Your task to perform on an android device: see sites visited before in the chrome app Image 0: 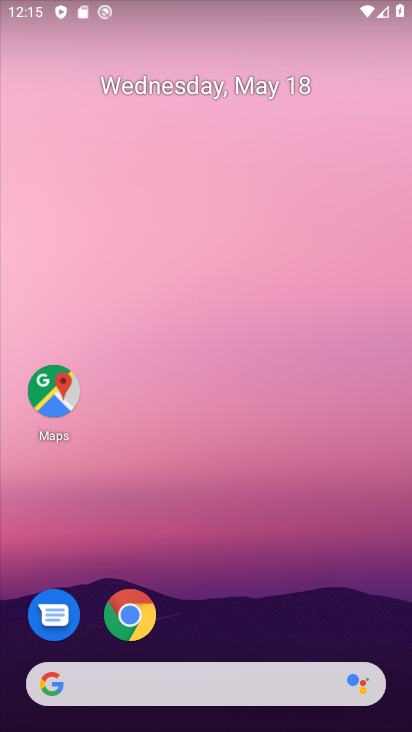
Step 0: click (135, 618)
Your task to perform on an android device: see sites visited before in the chrome app Image 1: 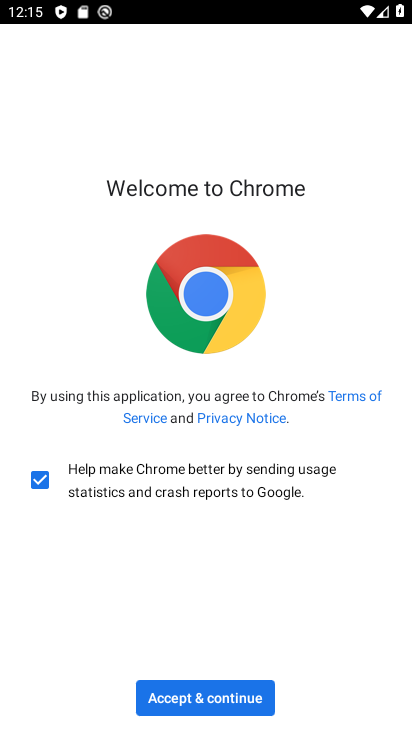
Step 1: click (188, 695)
Your task to perform on an android device: see sites visited before in the chrome app Image 2: 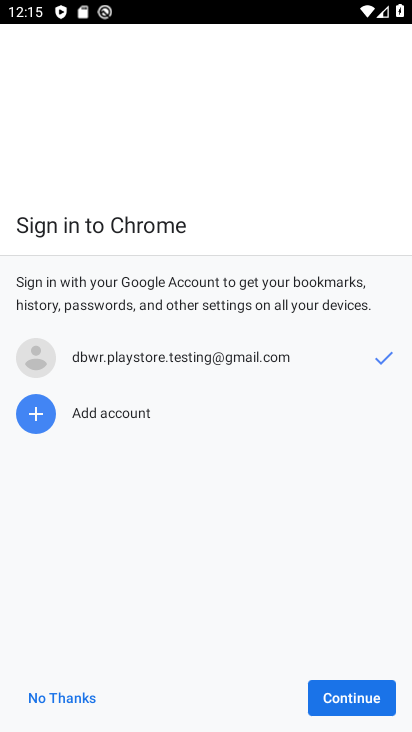
Step 2: click (348, 704)
Your task to perform on an android device: see sites visited before in the chrome app Image 3: 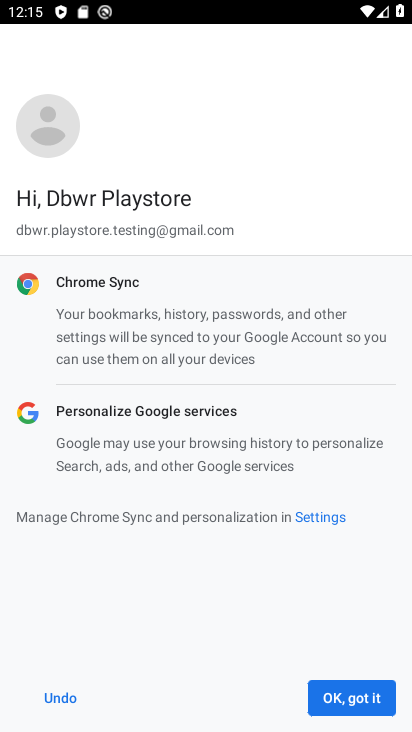
Step 3: click (351, 699)
Your task to perform on an android device: see sites visited before in the chrome app Image 4: 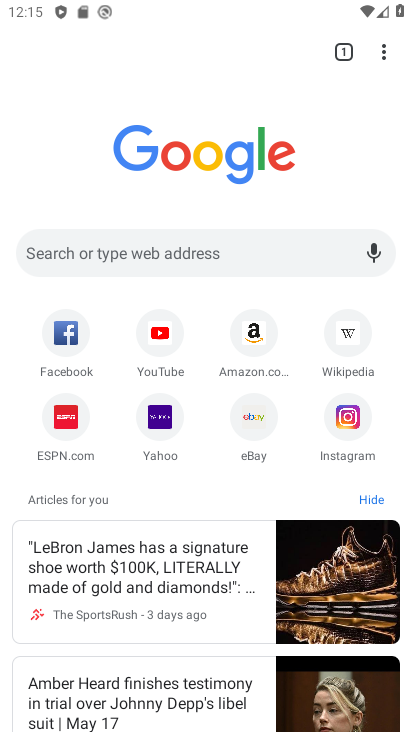
Step 4: click (383, 56)
Your task to perform on an android device: see sites visited before in the chrome app Image 5: 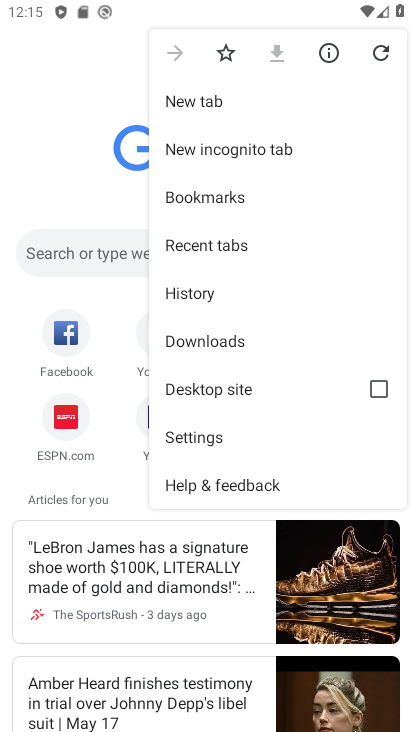
Step 5: click (214, 241)
Your task to perform on an android device: see sites visited before in the chrome app Image 6: 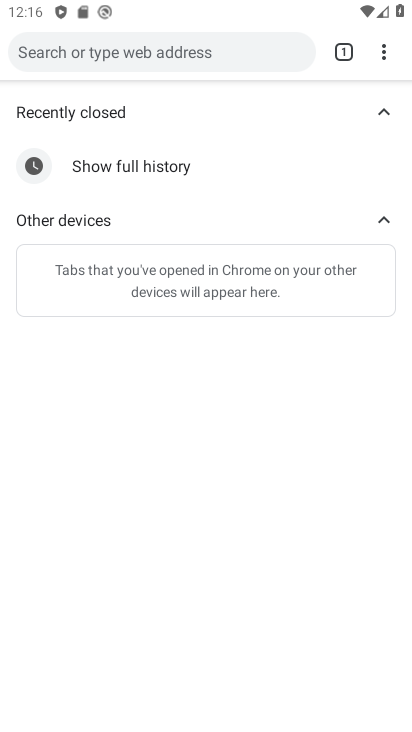
Step 6: task complete